Your task to perform on an android device: Show me popular videos on Youtube Image 0: 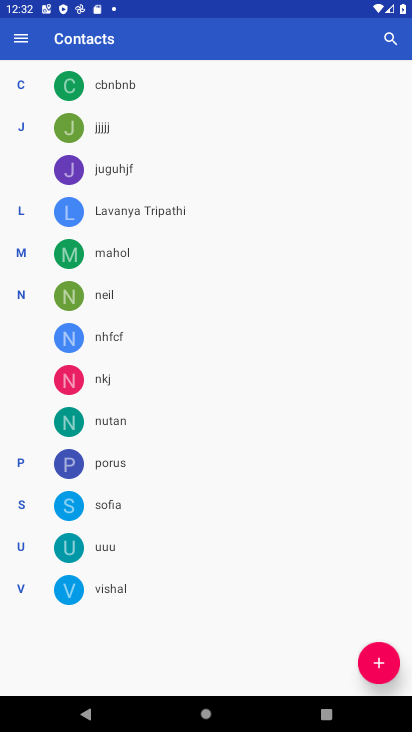
Step 0: press home button
Your task to perform on an android device: Show me popular videos on Youtube Image 1: 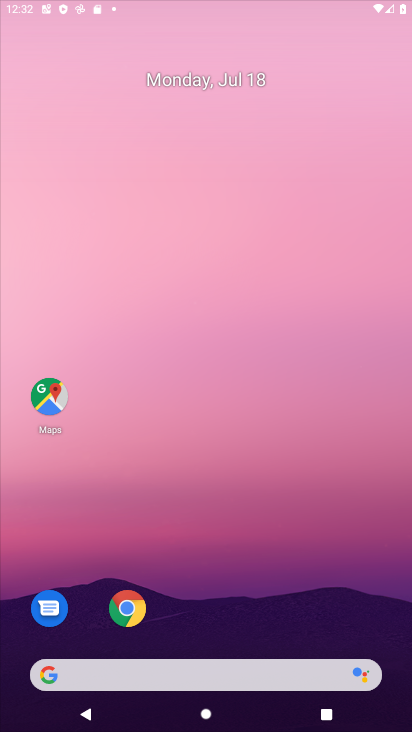
Step 1: drag from (347, 651) to (174, 35)
Your task to perform on an android device: Show me popular videos on Youtube Image 2: 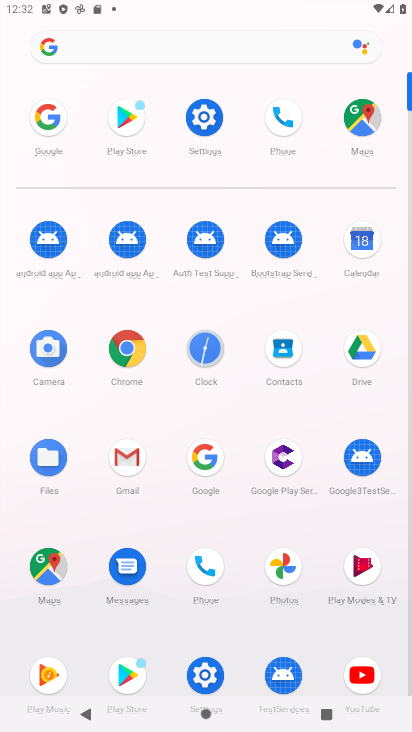
Step 2: click (364, 681)
Your task to perform on an android device: Show me popular videos on Youtube Image 3: 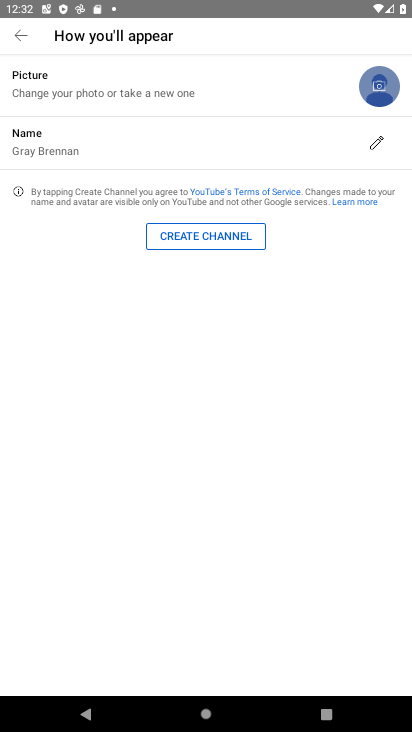
Step 3: task complete